Your task to perform on an android device: turn off picture-in-picture Image 0: 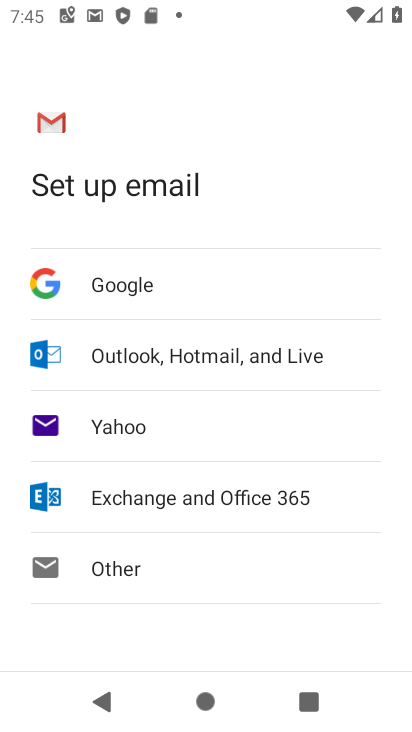
Step 0: press home button
Your task to perform on an android device: turn off picture-in-picture Image 1: 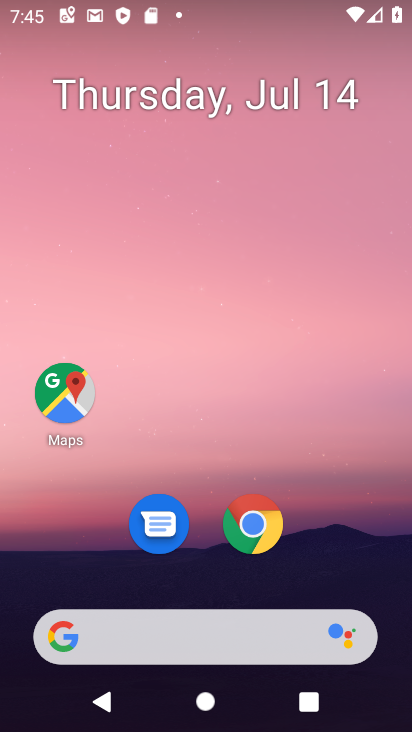
Step 1: click (260, 533)
Your task to perform on an android device: turn off picture-in-picture Image 2: 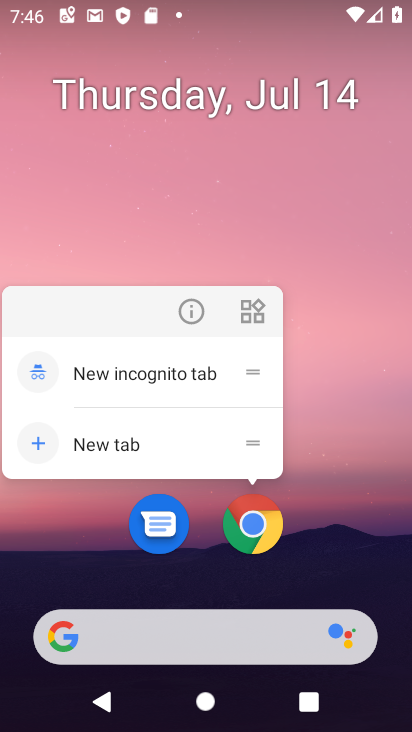
Step 2: click (194, 302)
Your task to perform on an android device: turn off picture-in-picture Image 3: 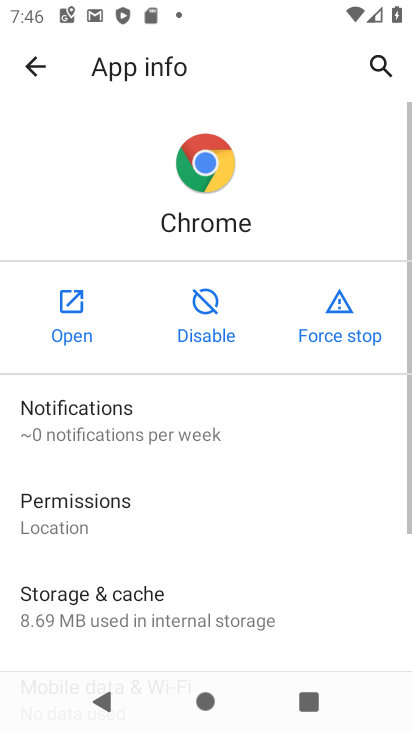
Step 3: drag from (192, 504) to (184, 97)
Your task to perform on an android device: turn off picture-in-picture Image 4: 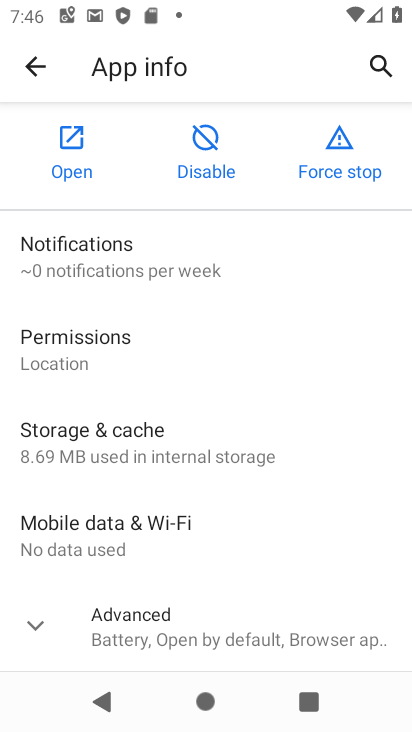
Step 4: click (35, 621)
Your task to perform on an android device: turn off picture-in-picture Image 5: 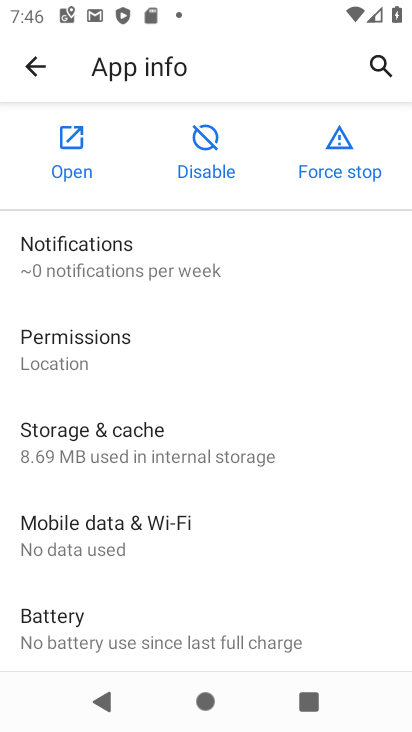
Step 5: drag from (146, 580) to (170, 42)
Your task to perform on an android device: turn off picture-in-picture Image 6: 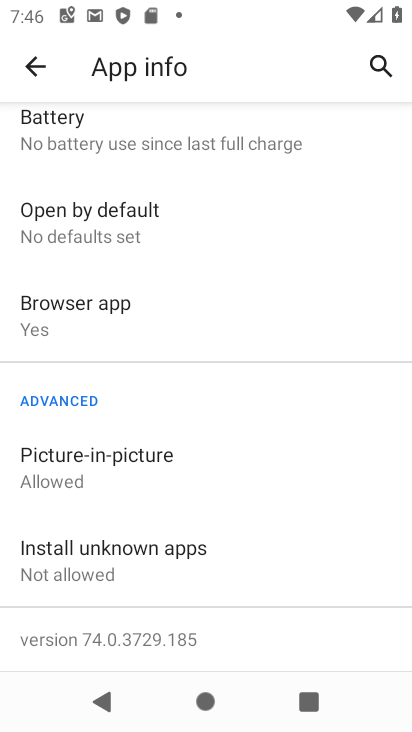
Step 6: click (139, 469)
Your task to perform on an android device: turn off picture-in-picture Image 7: 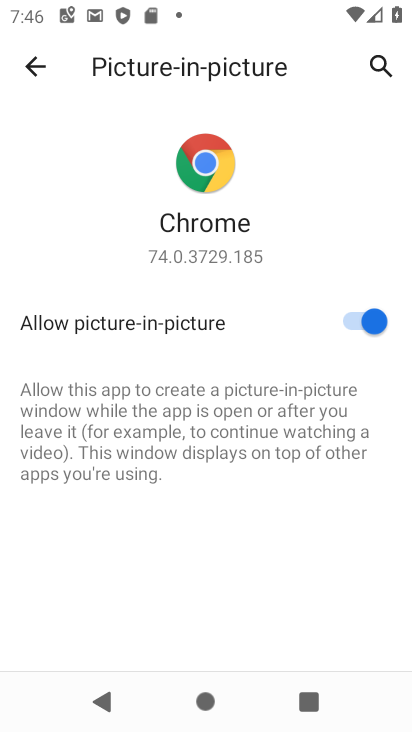
Step 7: click (367, 315)
Your task to perform on an android device: turn off picture-in-picture Image 8: 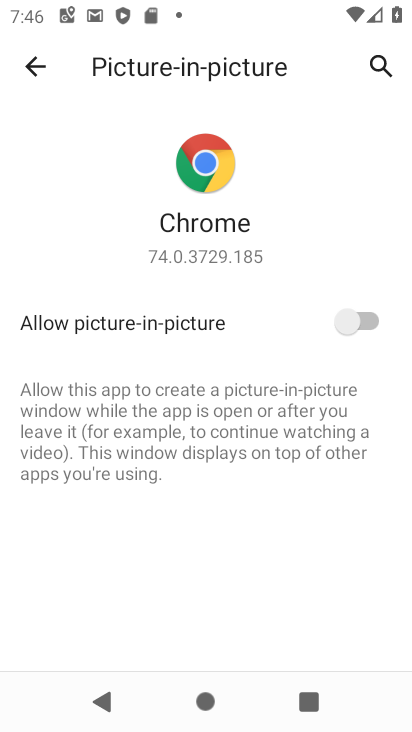
Step 8: task complete